Your task to perform on an android device: Open the calendar app, open the side menu, and click the "Day" option Image 0: 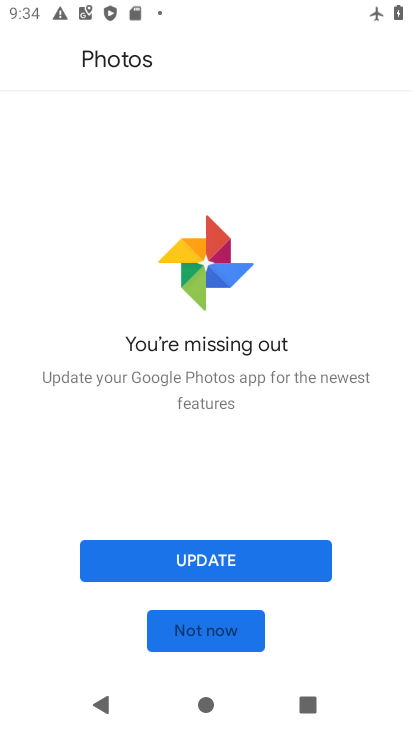
Step 0: press home button
Your task to perform on an android device: Open the calendar app, open the side menu, and click the "Day" option Image 1: 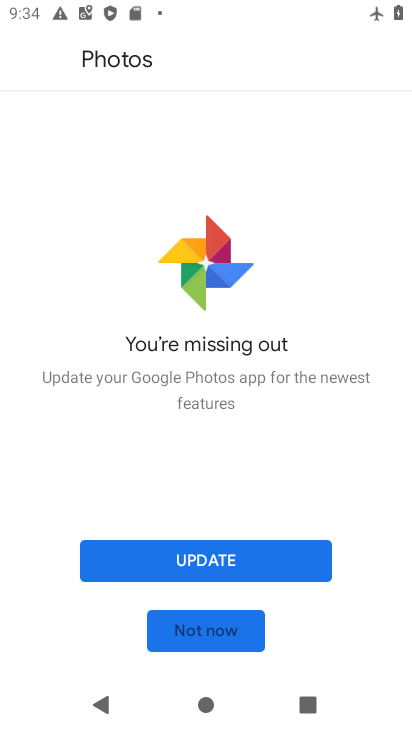
Step 1: press home button
Your task to perform on an android device: Open the calendar app, open the side menu, and click the "Day" option Image 2: 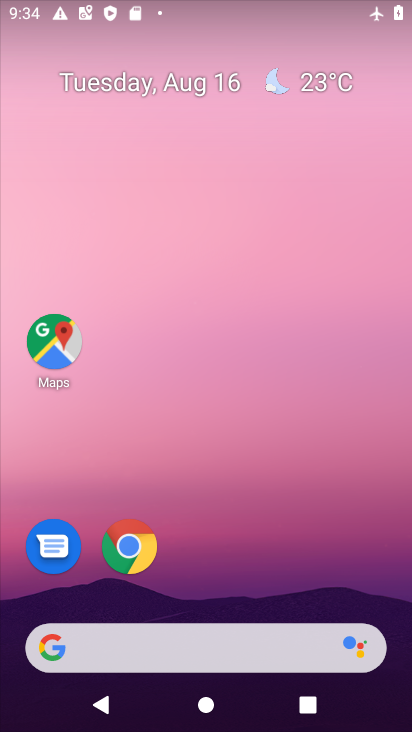
Step 2: drag from (246, 550) to (311, 4)
Your task to perform on an android device: Open the calendar app, open the side menu, and click the "Day" option Image 3: 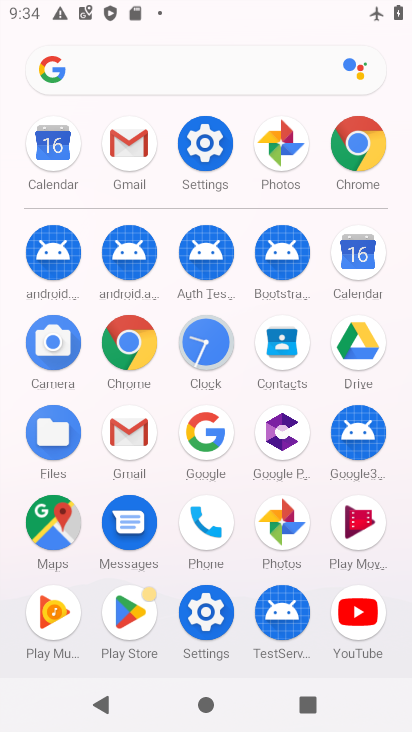
Step 3: click (358, 258)
Your task to perform on an android device: Open the calendar app, open the side menu, and click the "Day" option Image 4: 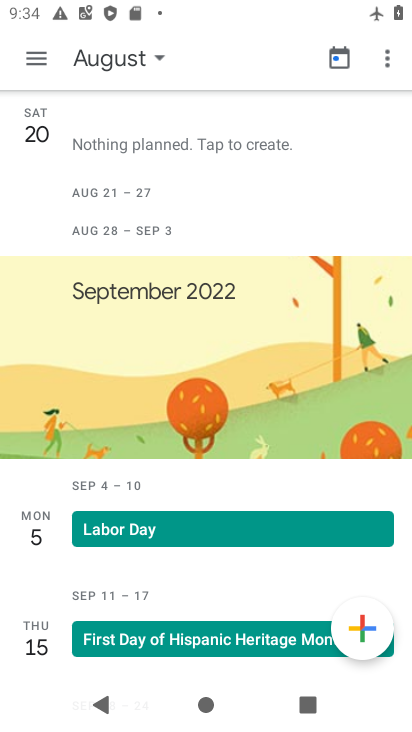
Step 4: drag from (165, 143) to (166, 441)
Your task to perform on an android device: Open the calendar app, open the side menu, and click the "Day" option Image 5: 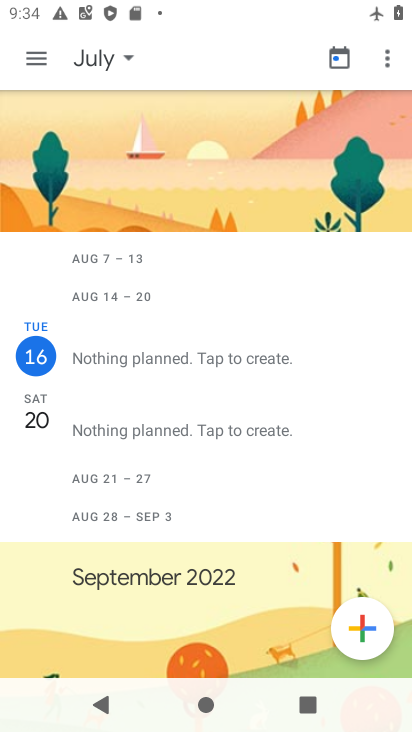
Step 5: click (41, 357)
Your task to perform on an android device: Open the calendar app, open the side menu, and click the "Day" option Image 6: 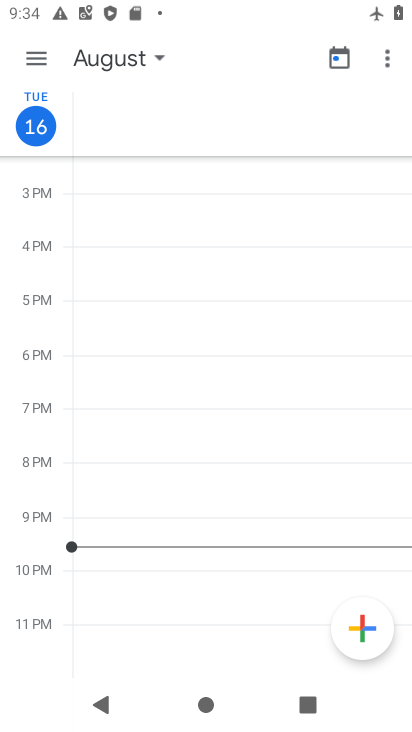
Step 6: click (37, 53)
Your task to perform on an android device: Open the calendar app, open the side menu, and click the "Day" option Image 7: 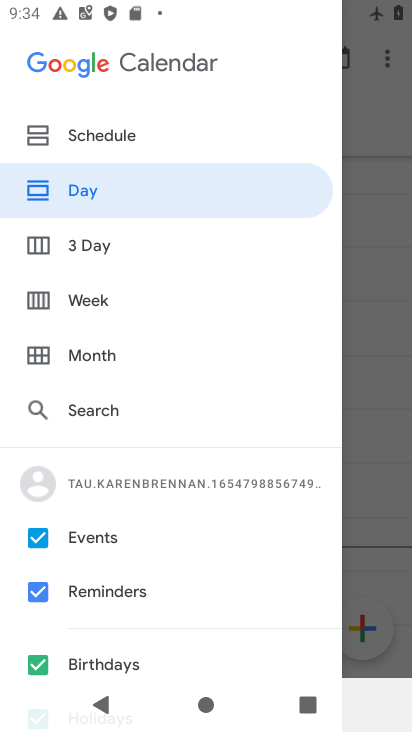
Step 7: click (36, 183)
Your task to perform on an android device: Open the calendar app, open the side menu, and click the "Day" option Image 8: 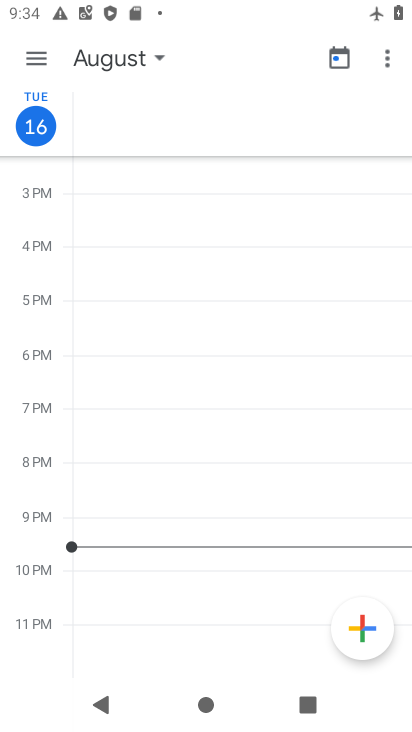
Step 8: task complete